Your task to perform on an android device: Search for sushi restaurants on Maps Image 0: 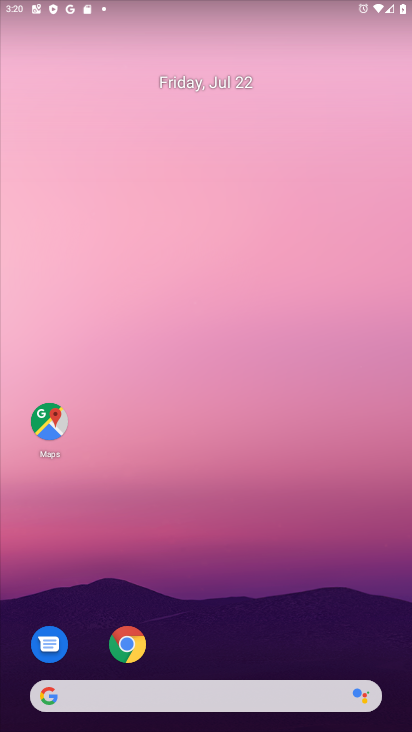
Step 0: click (150, 731)
Your task to perform on an android device: Search for sushi restaurants on Maps Image 1: 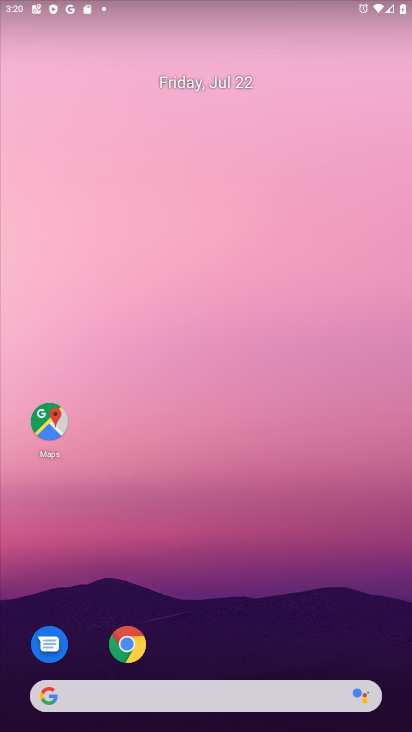
Step 1: click (42, 433)
Your task to perform on an android device: Search for sushi restaurants on Maps Image 2: 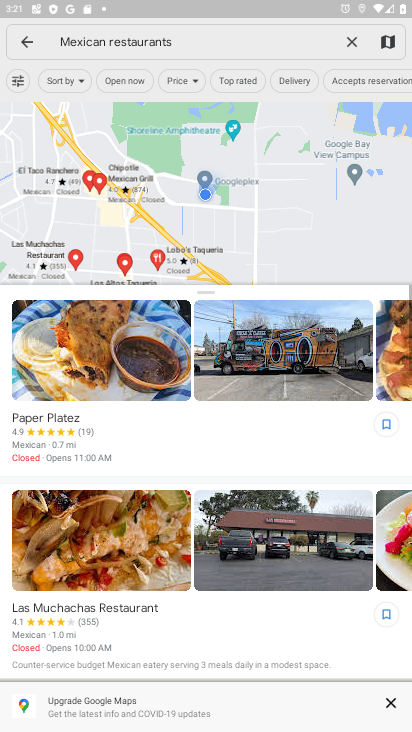
Step 2: click (348, 41)
Your task to perform on an android device: Search for sushi restaurants on Maps Image 3: 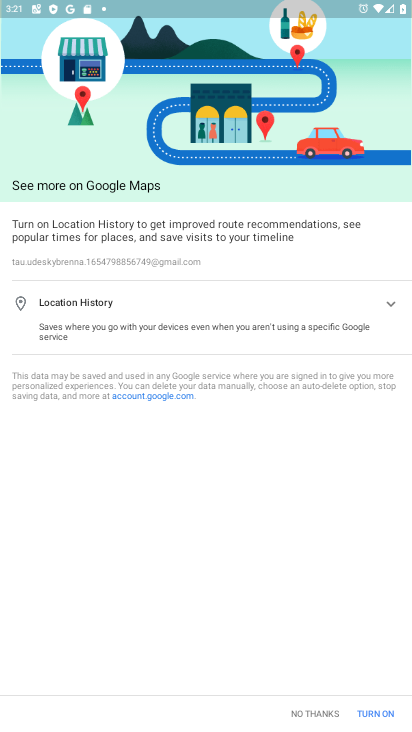
Step 3: click (369, 713)
Your task to perform on an android device: Search for sushi restaurants on Maps Image 4: 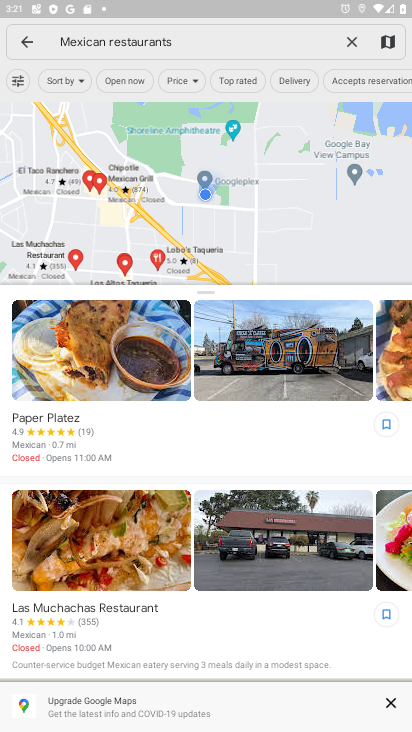
Step 4: click (357, 36)
Your task to perform on an android device: Search for sushi restaurants on Maps Image 5: 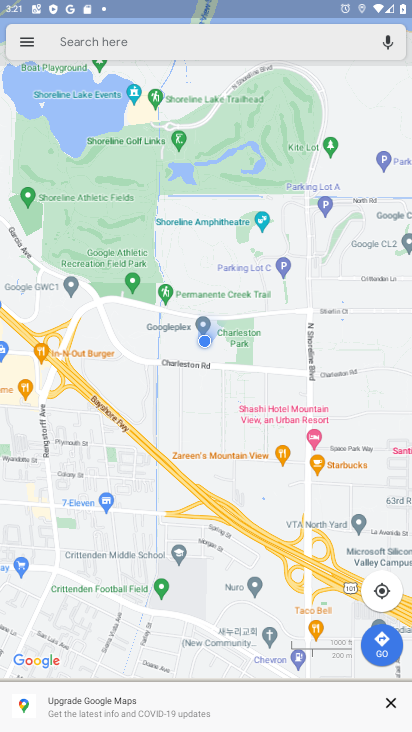
Step 5: click (288, 40)
Your task to perform on an android device: Search for sushi restaurants on Maps Image 6: 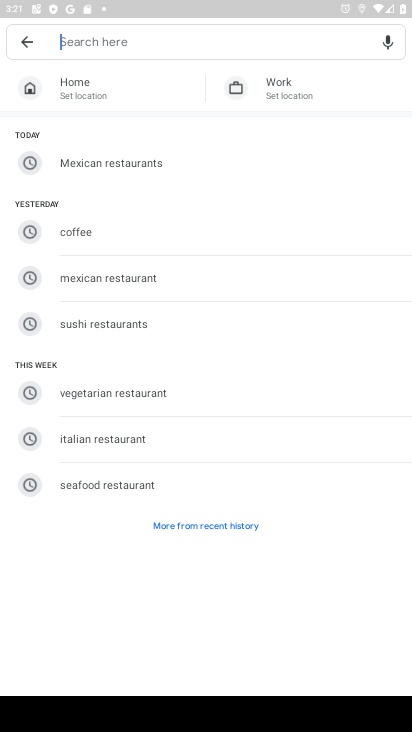
Step 6: type " sushi restaurants "
Your task to perform on an android device: Search for sushi restaurants on Maps Image 7: 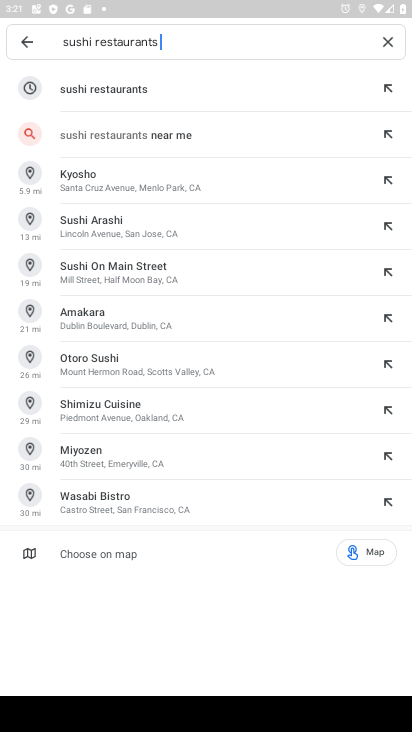
Step 7: press enter
Your task to perform on an android device: Search for sushi restaurants on Maps Image 8: 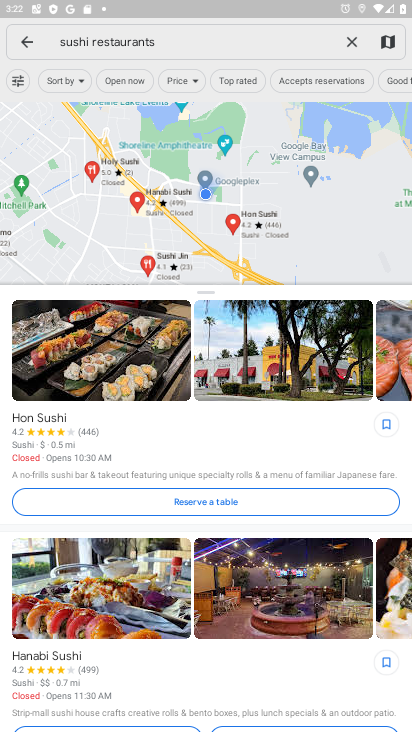
Step 8: task complete